Your task to perform on an android device: Open the stopwatch Image 0: 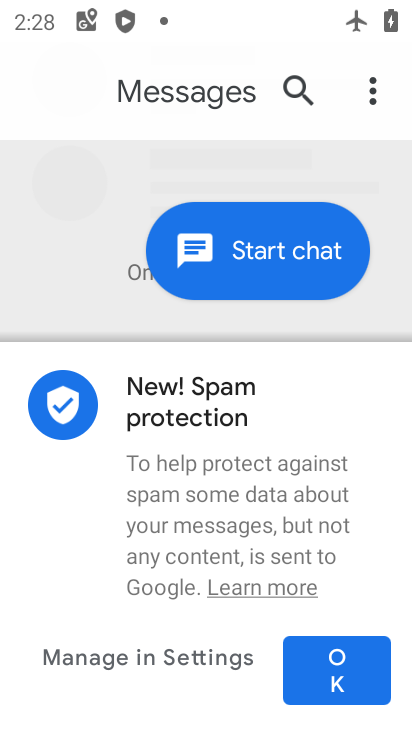
Step 0: press home button
Your task to perform on an android device: Open the stopwatch Image 1: 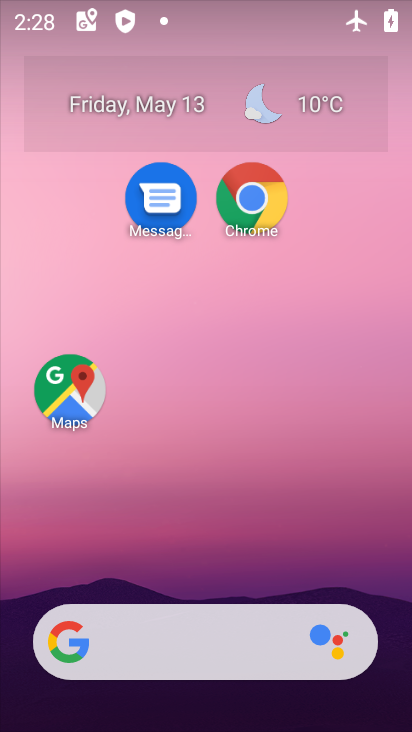
Step 1: drag from (222, 592) to (134, 21)
Your task to perform on an android device: Open the stopwatch Image 2: 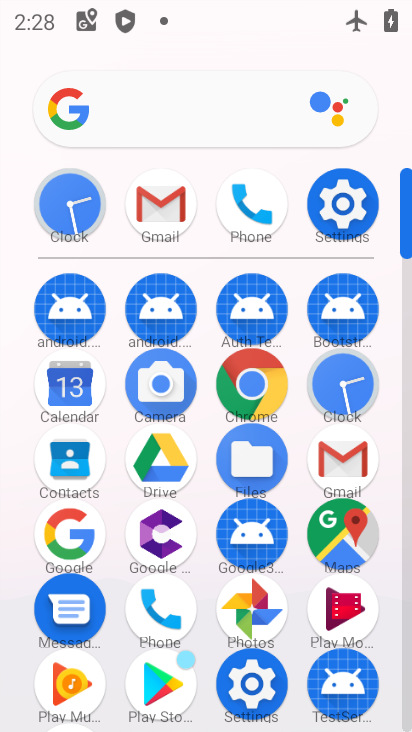
Step 2: click (360, 396)
Your task to perform on an android device: Open the stopwatch Image 3: 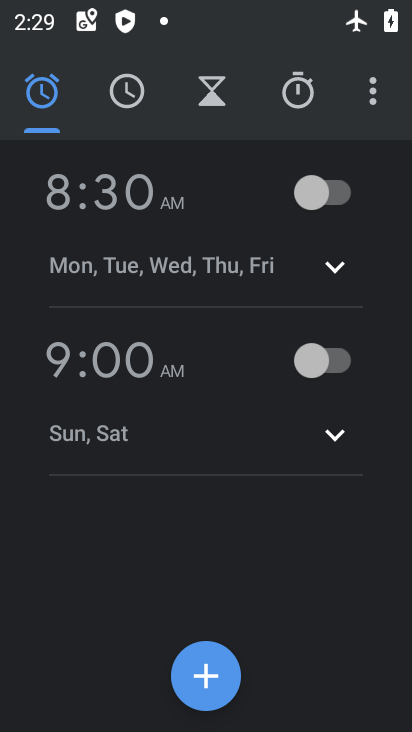
Step 3: click (319, 93)
Your task to perform on an android device: Open the stopwatch Image 4: 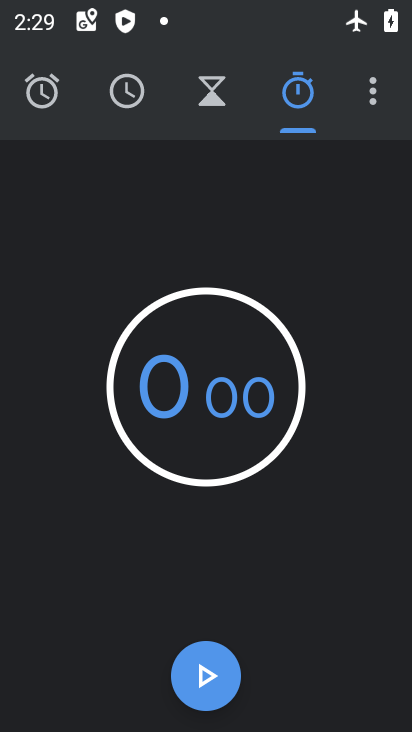
Step 4: task complete